Your task to perform on an android device: check storage Image 0: 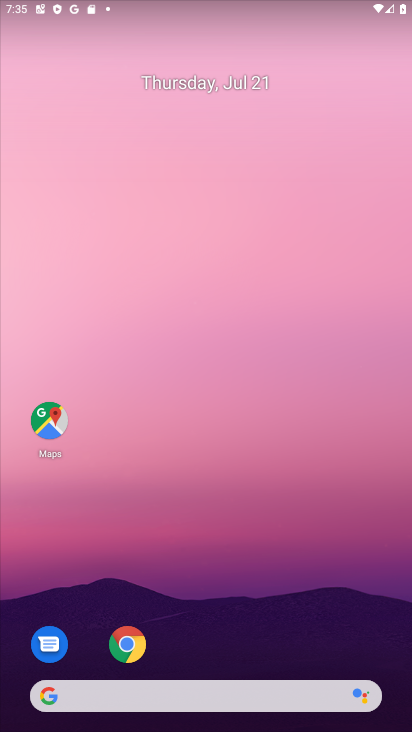
Step 0: drag from (297, 528) to (343, 138)
Your task to perform on an android device: check storage Image 1: 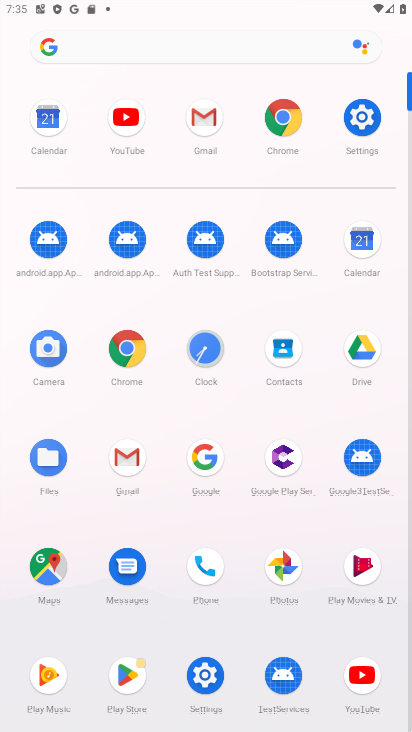
Step 1: click (215, 672)
Your task to perform on an android device: check storage Image 2: 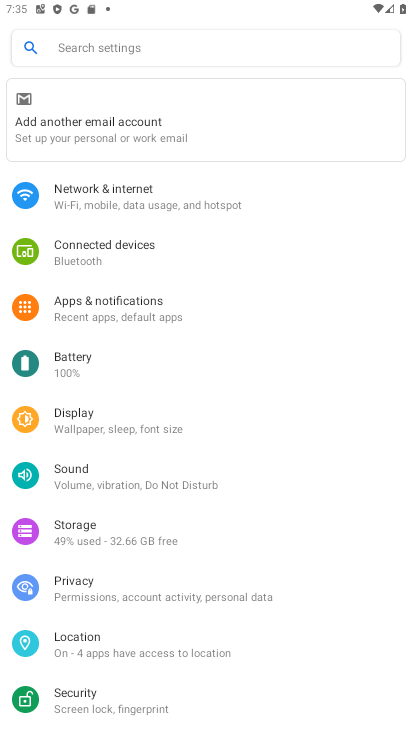
Step 2: click (110, 534)
Your task to perform on an android device: check storage Image 3: 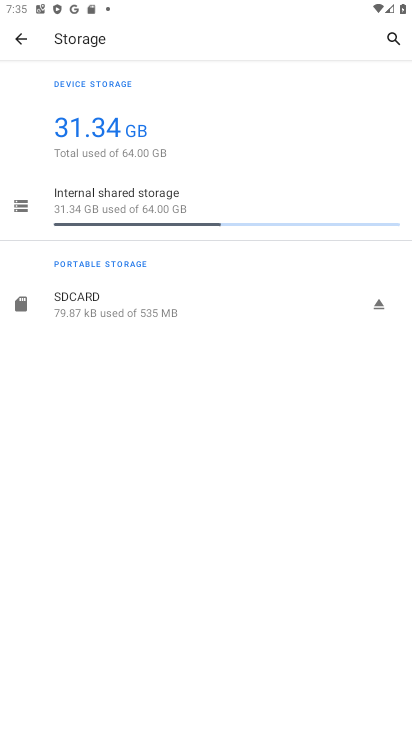
Step 3: task complete